Your task to perform on an android device: Open my contact list Image 0: 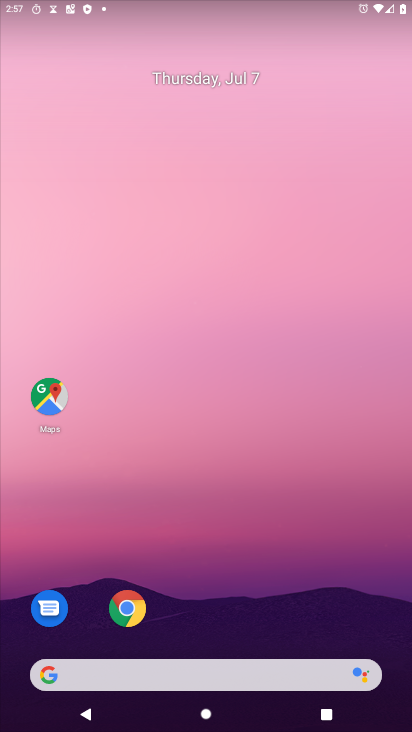
Step 0: drag from (258, 717) to (251, 168)
Your task to perform on an android device: Open my contact list Image 1: 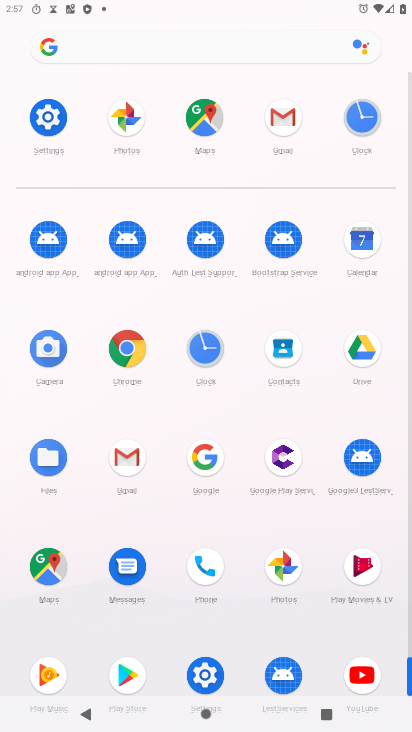
Step 1: click (287, 346)
Your task to perform on an android device: Open my contact list Image 2: 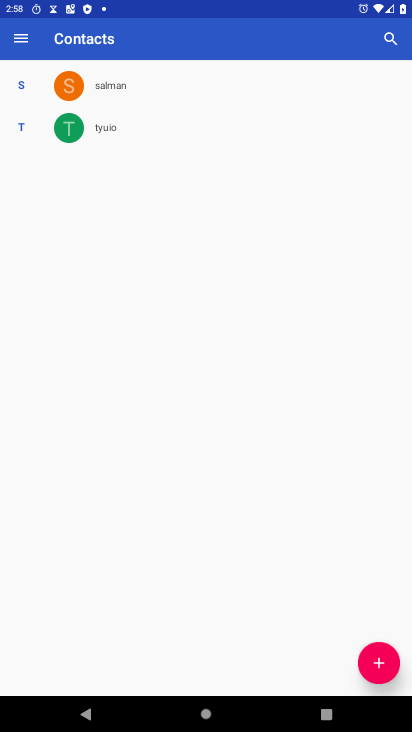
Step 2: task complete